Your task to perform on an android device: install app "Google Chat" Image 0: 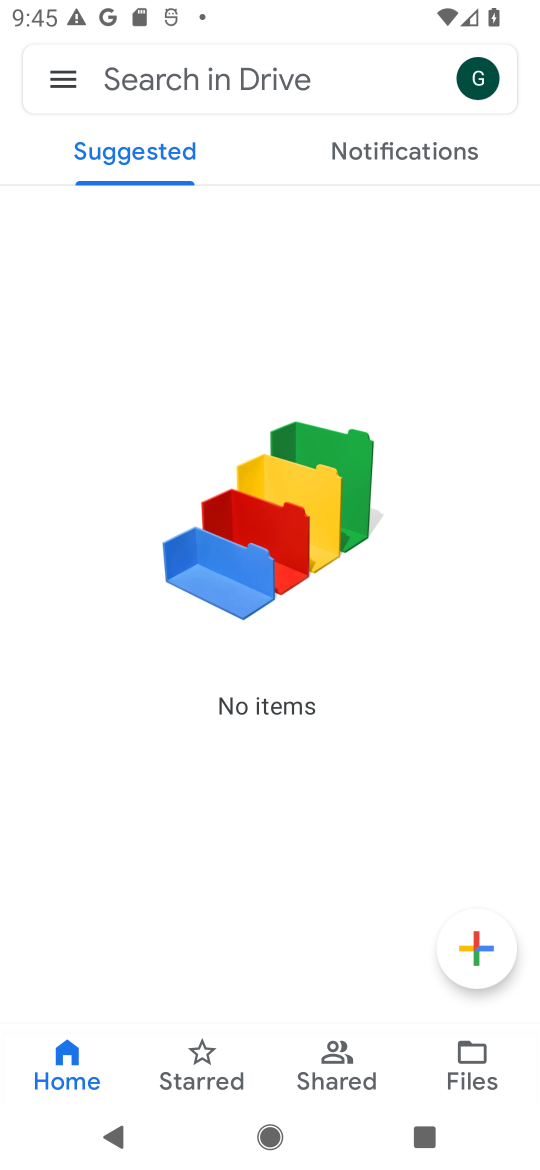
Step 0: press home button
Your task to perform on an android device: install app "Google Chat" Image 1: 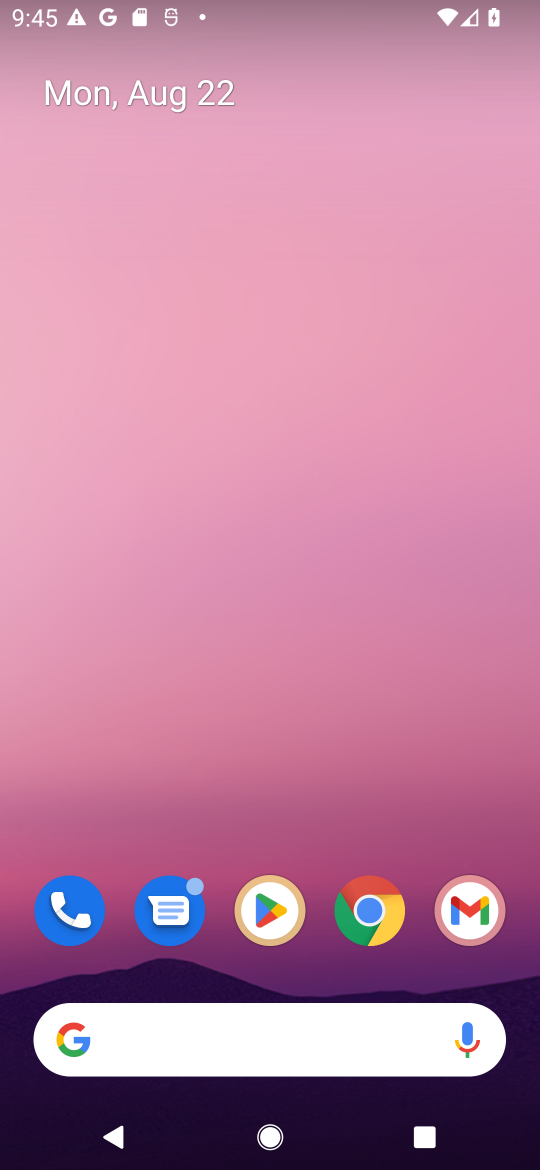
Step 1: click (242, 903)
Your task to perform on an android device: install app "Google Chat" Image 2: 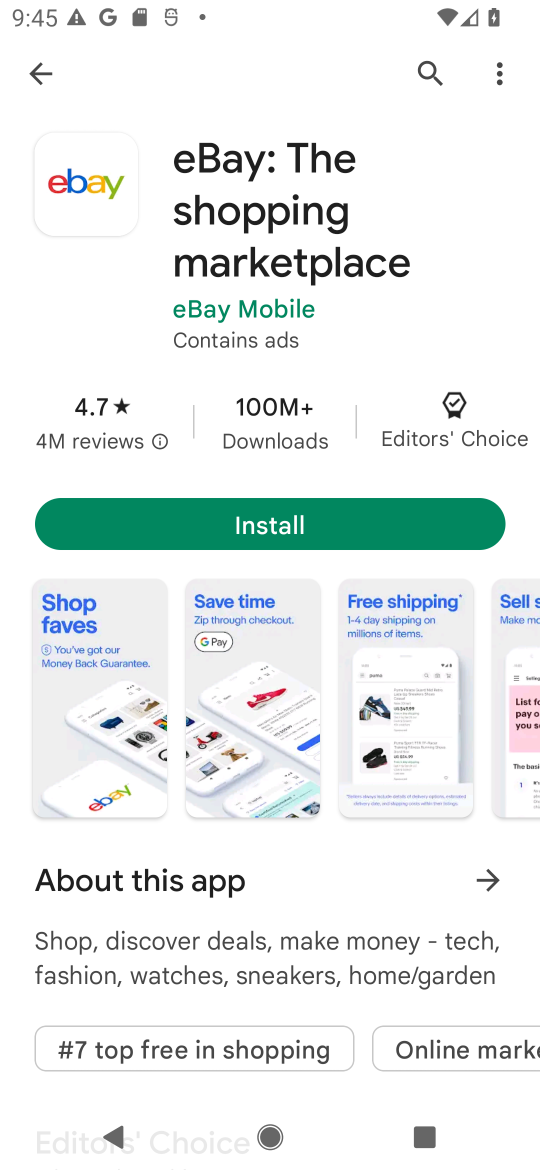
Step 2: click (433, 64)
Your task to perform on an android device: install app "Google Chat" Image 3: 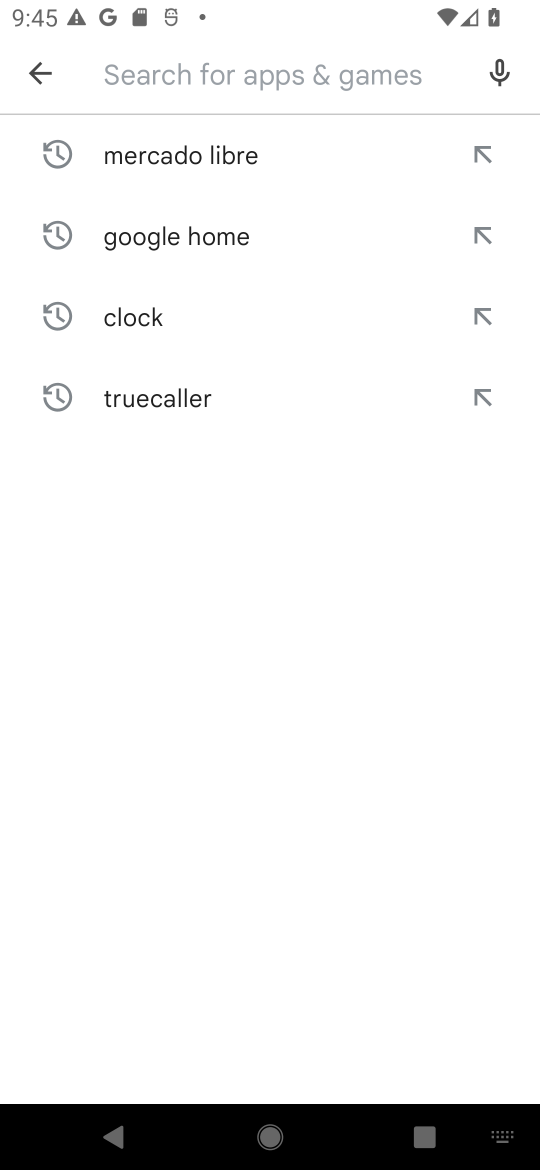
Step 3: type "Google Chat"
Your task to perform on an android device: install app "Google Chat" Image 4: 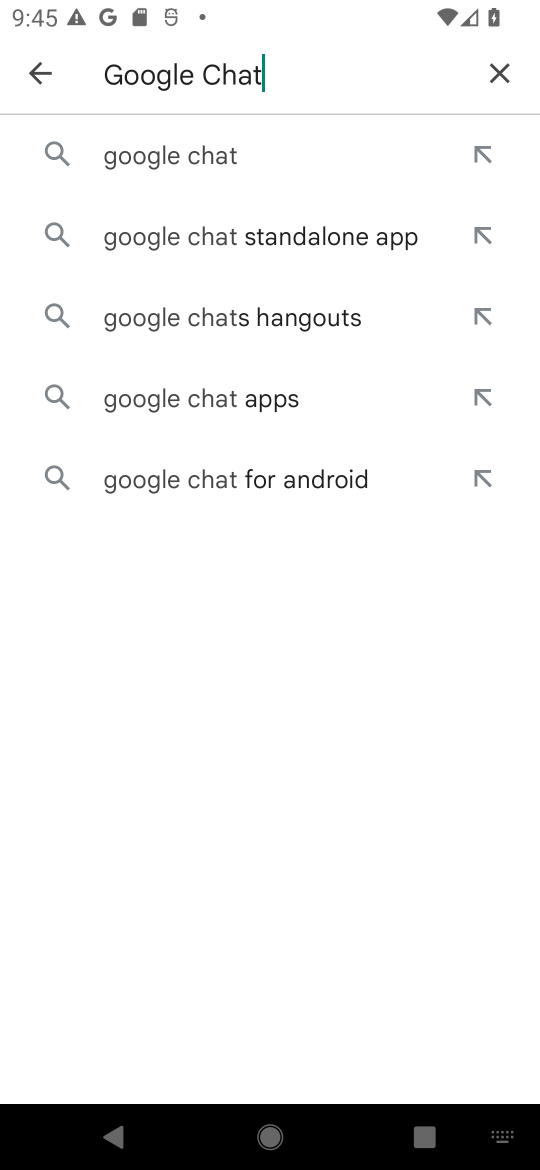
Step 4: click (215, 154)
Your task to perform on an android device: install app "Google Chat" Image 5: 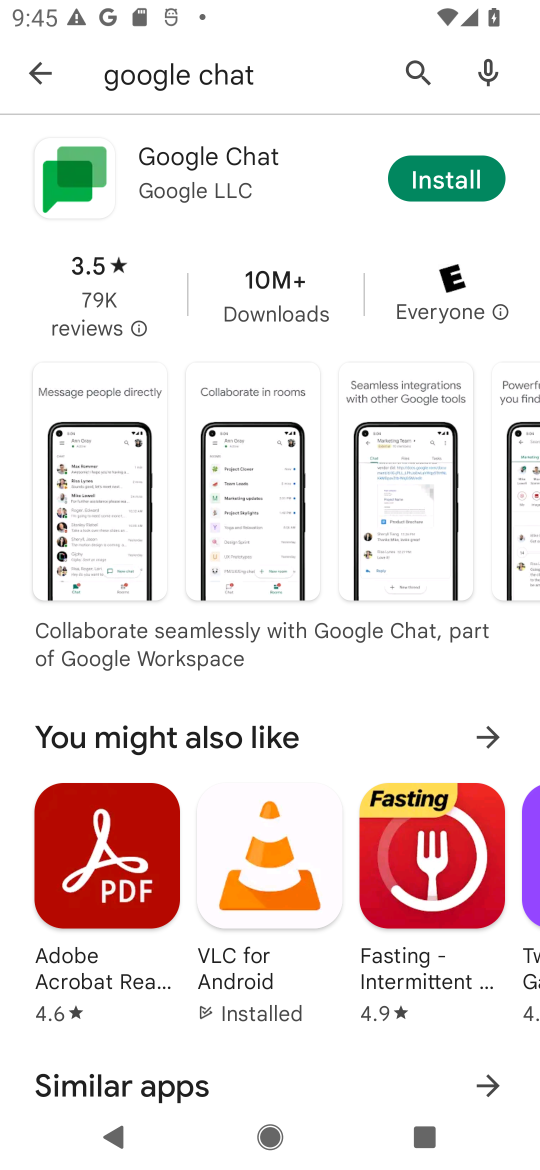
Step 5: click (464, 171)
Your task to perform on an android device: install app "Google Chat" Image 6: 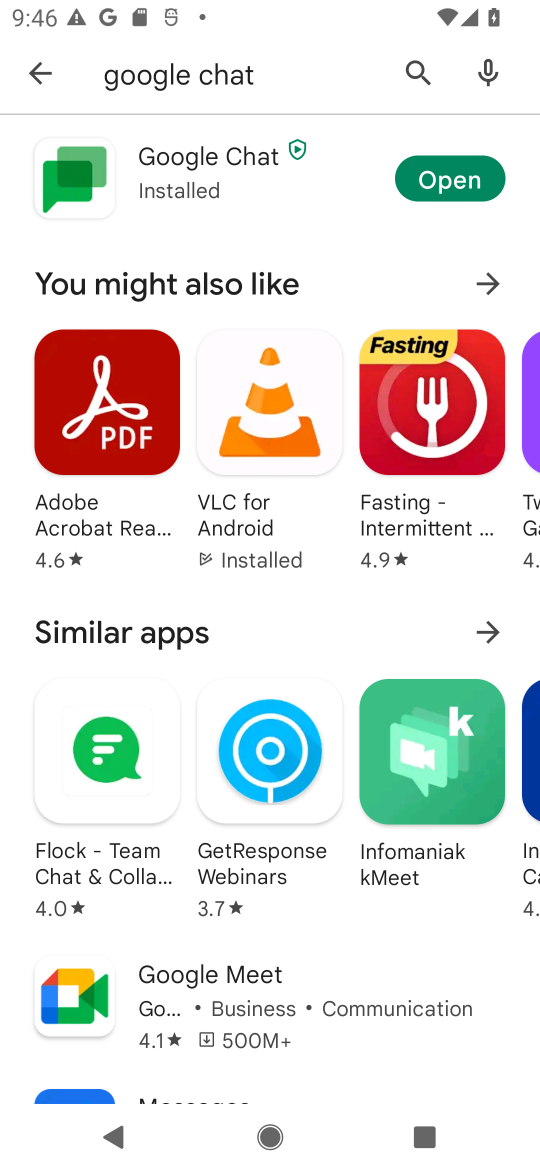
Step 6: task complete